Your task to perform on an android device: Open ESPN.com Image 0: 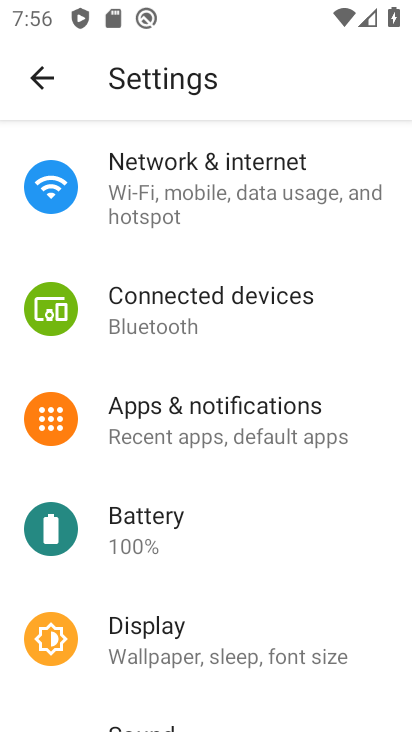
Step 0: press home button
Your task to perform on an android device: Open ESPN.com Image 1: 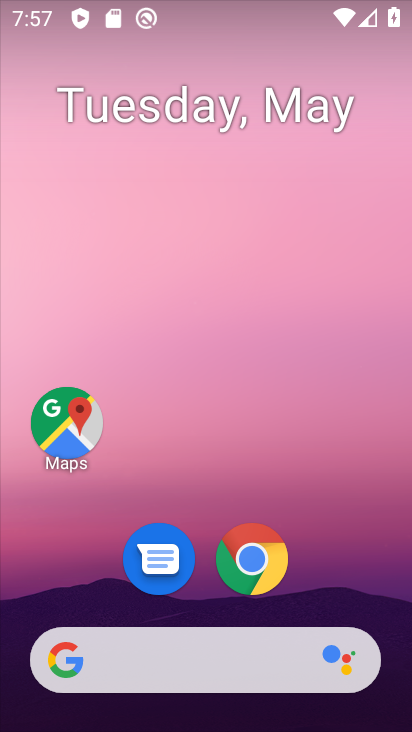
Step 1: click (244, 557)
Your task to perform on an android device: Open ESPN.com Image 2: 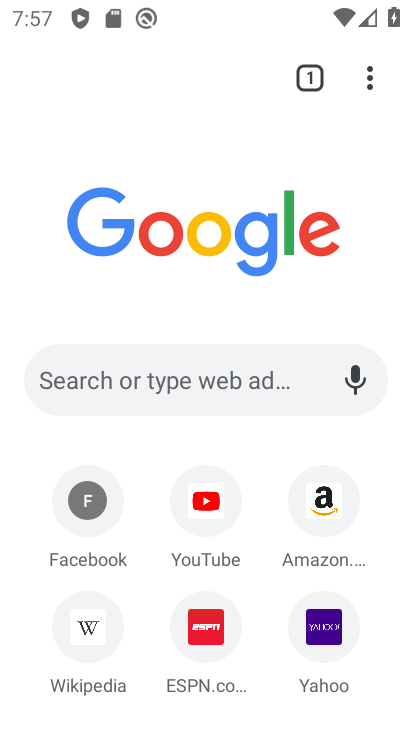
Step 2: click (201, 393)
Your task to perform on an android device: Open ESPN.com Image 3: 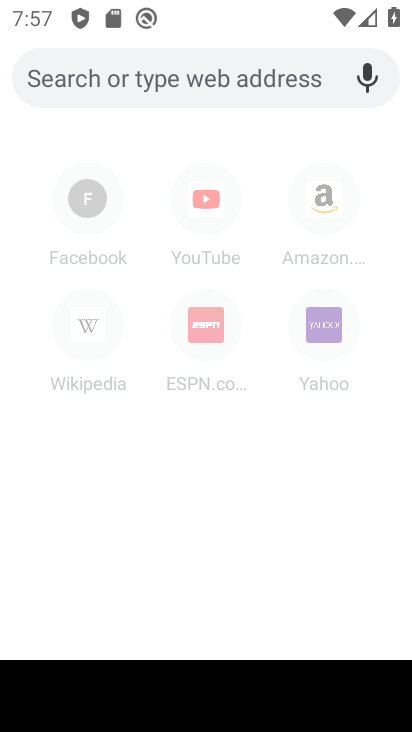
Step 3: type "ESPN.com"
Your task to perform on an android device: Open ESPN.com Image 4: 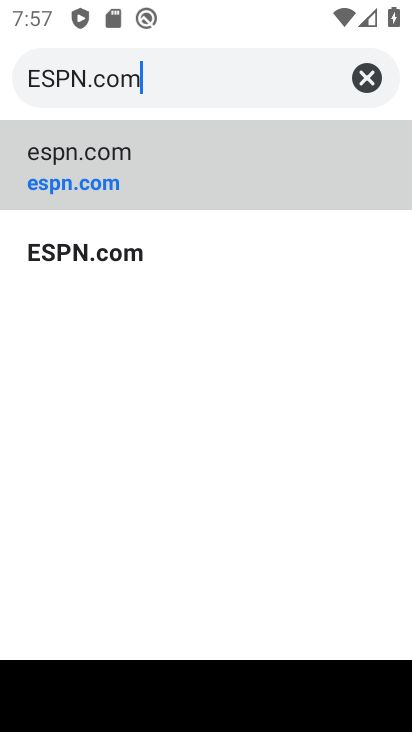
Step 4: click (163, 162)
Your task to perform on an android device: Open ESPN.com Image 5: 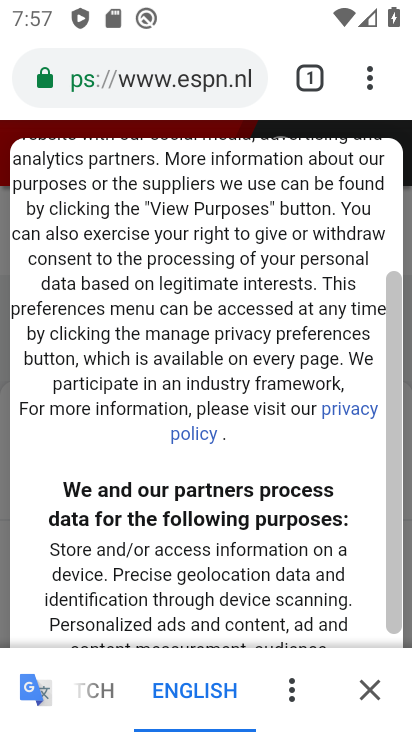
Step 5: task complete